Your task to perform on an android device: Show me a list of home improvement items on the Home Depot website. Image 0: 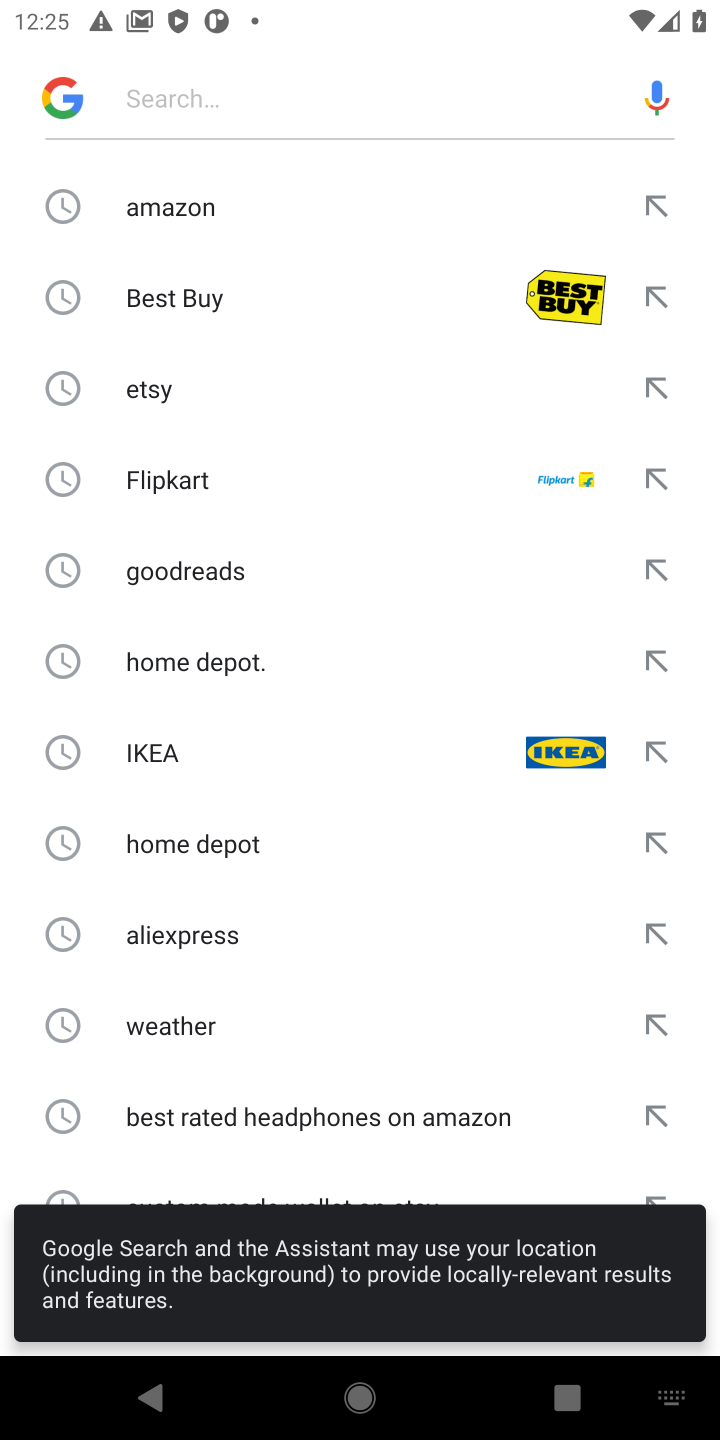
Step 0: press home button
Your task to perform on an android device: Show me a list of home improvement items on the Home Depot website. Image 1: 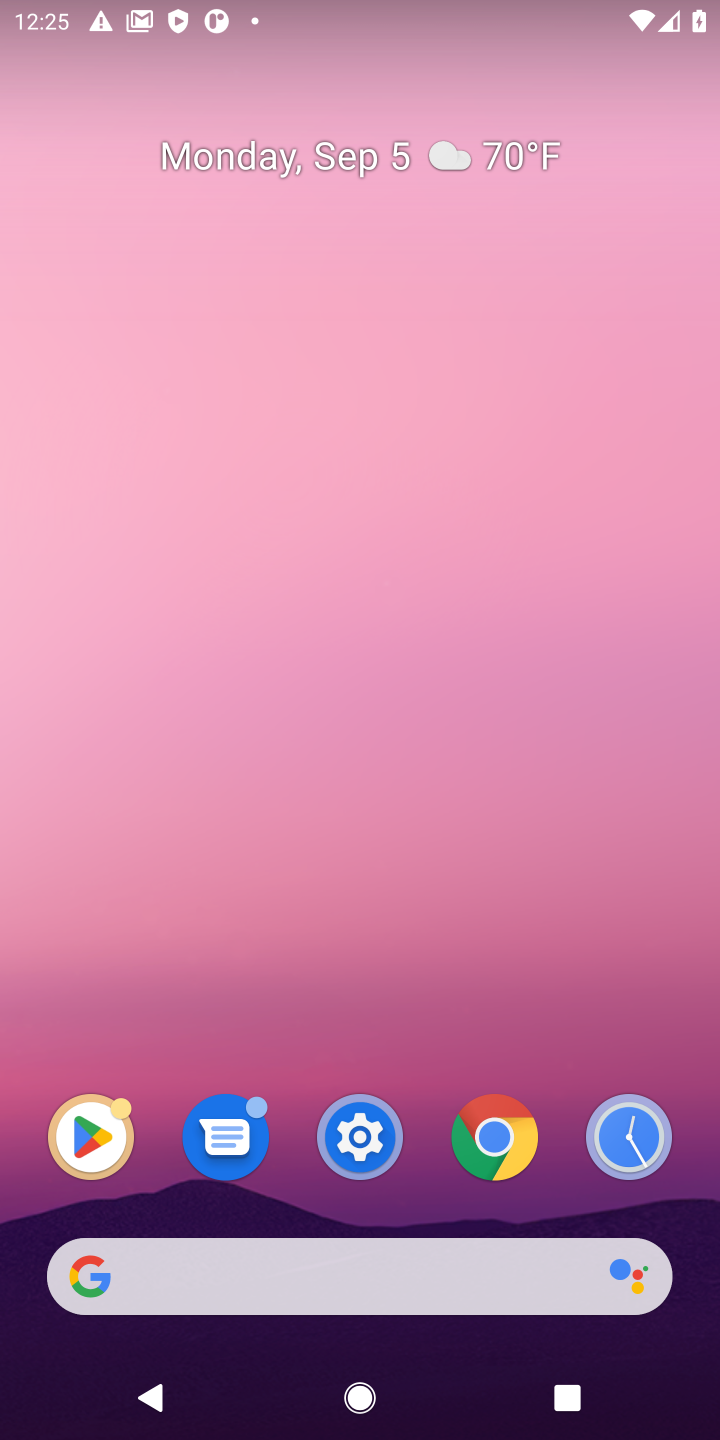
Step 1: click (483, 1148)
Your task to perform on an android device: Show me a list of home improvement items on the Home Depot website. Image 2: 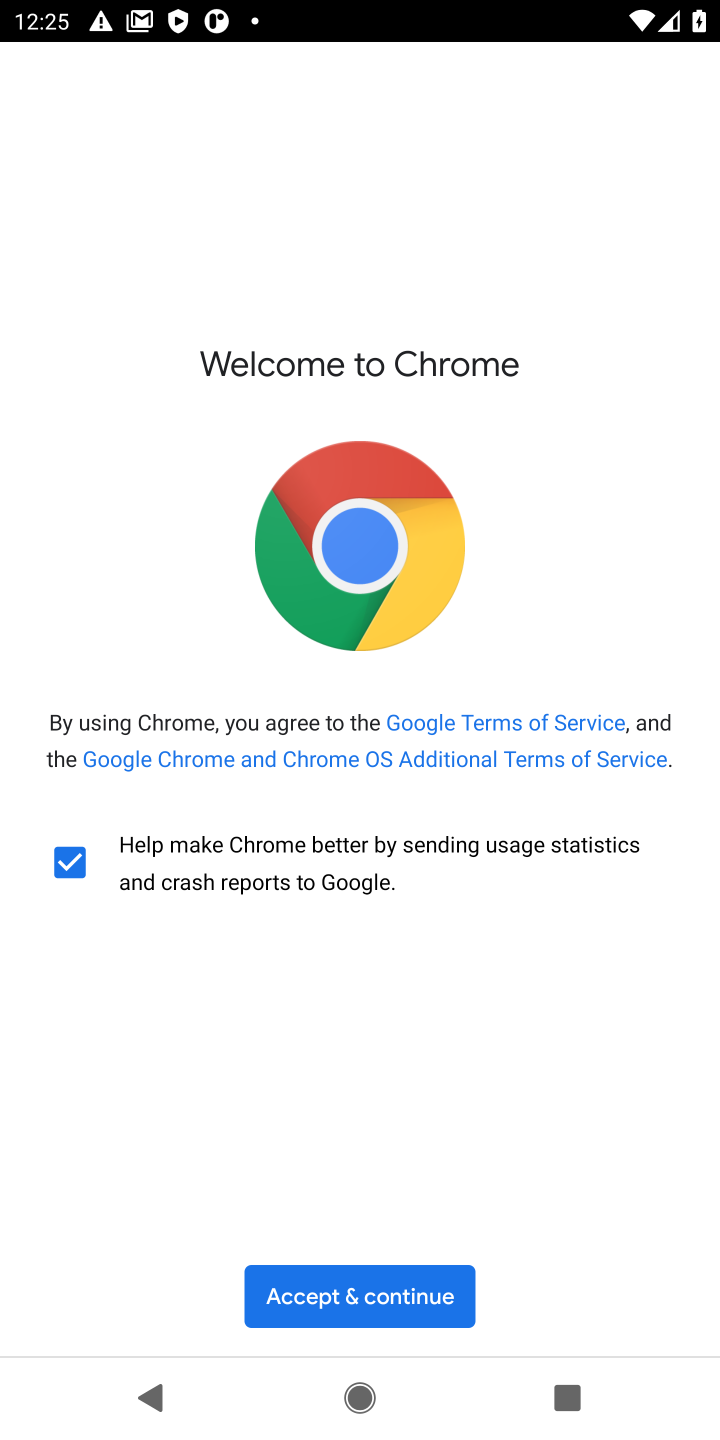
Step 2: click (356, 1305)
Your task to perform on an android device: Show me a list of home improvement items on the Home Depot website. Image 3: 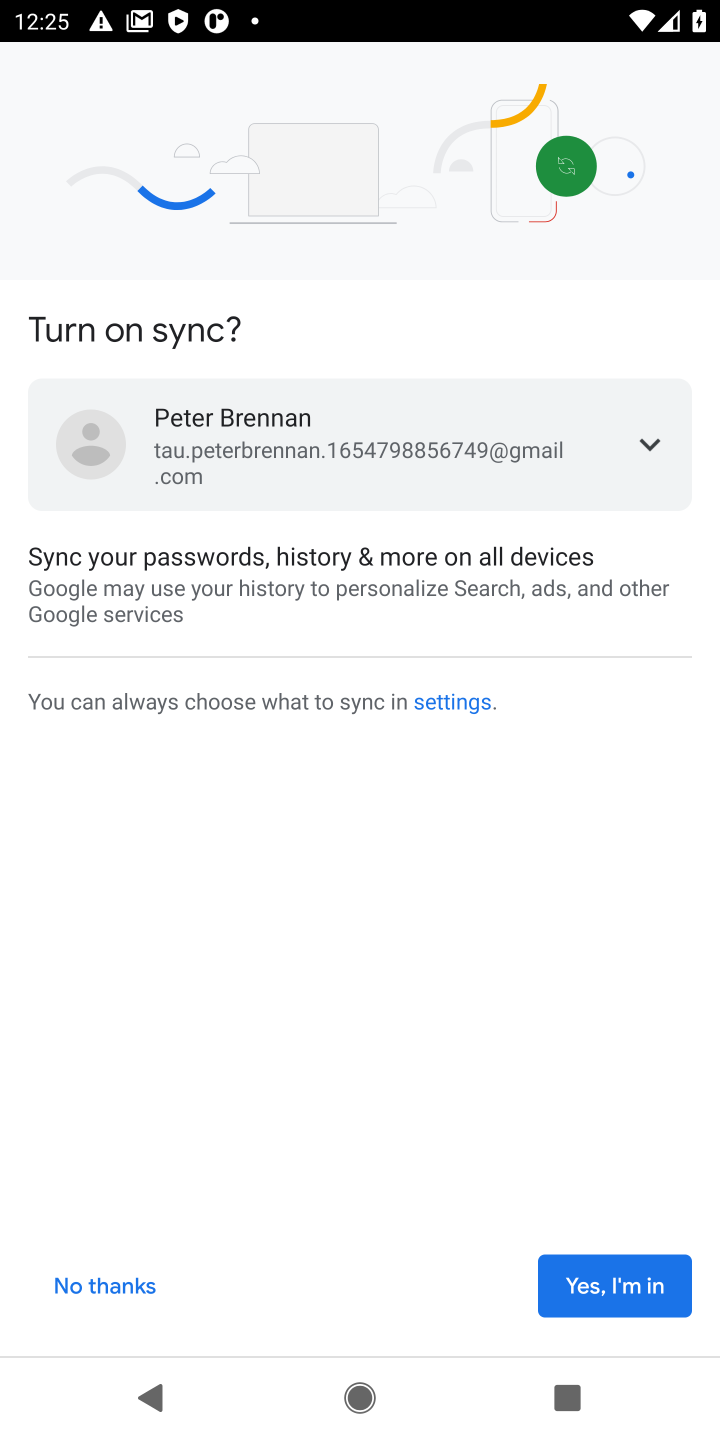
Step 3: click (573, 1276)
Your task to perform on an android device: Show me a list of home improvement items on the Home Depot website. Image 4: 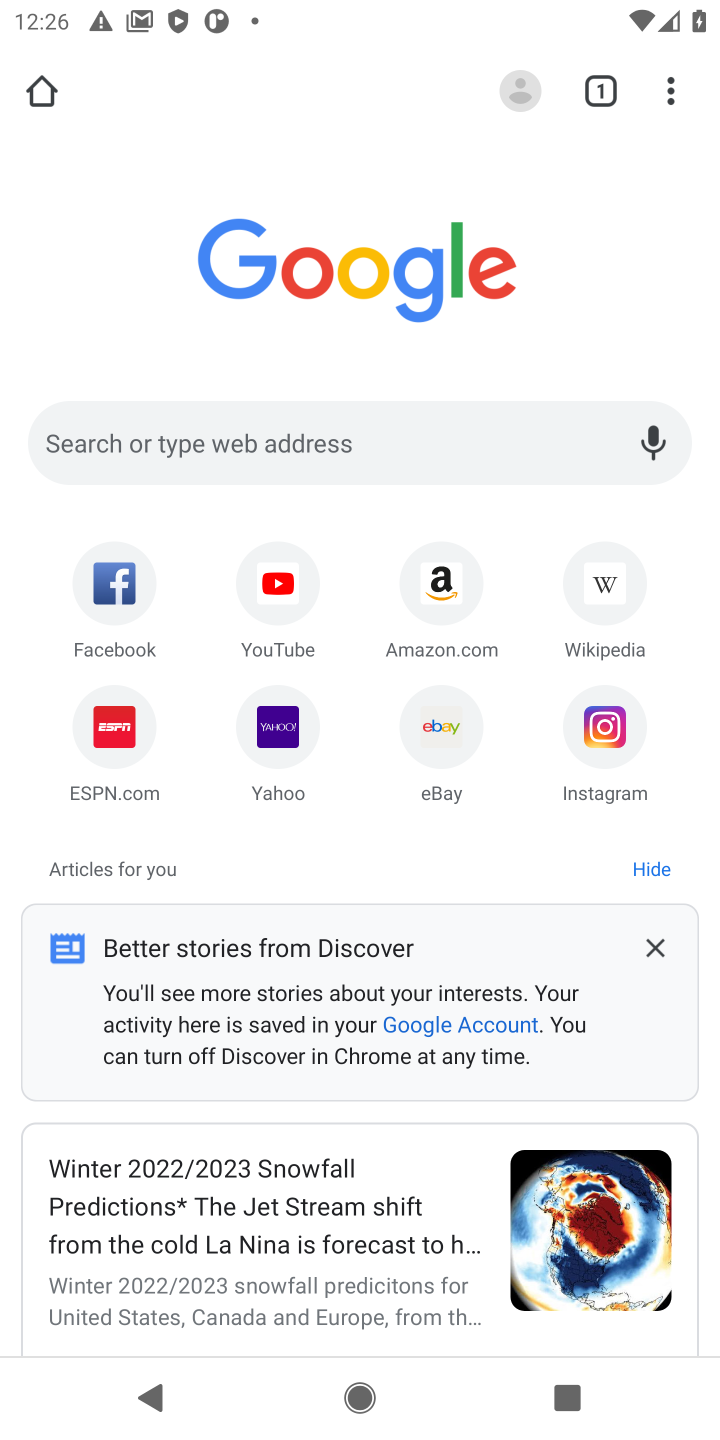
Step 4: click (342, 461)
Your task to perform on an android device: Show me a list of home improvement items on the Home Depot website. Image 5: 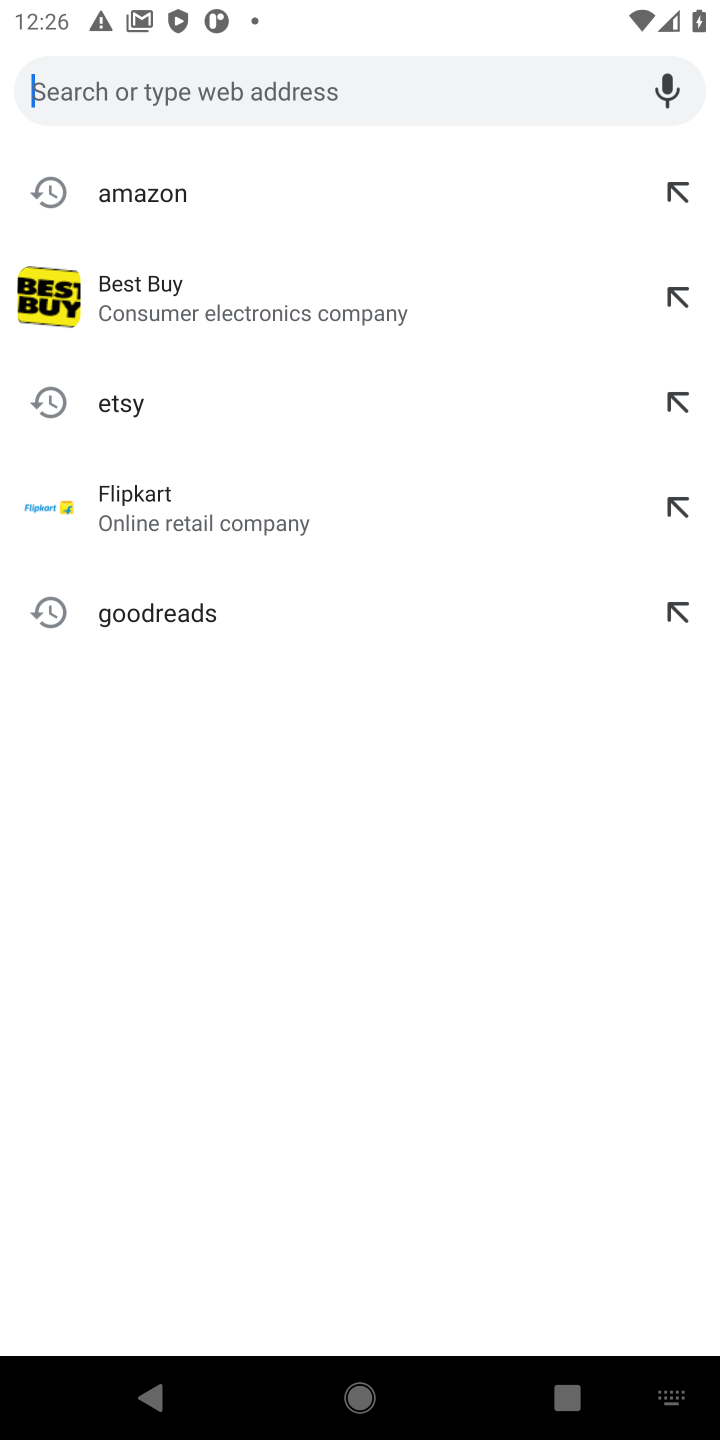
Step 5: type "home depot"
Your task to perform on an android device: Show me a list of home improvement items on the Home Depot website. Image 6: 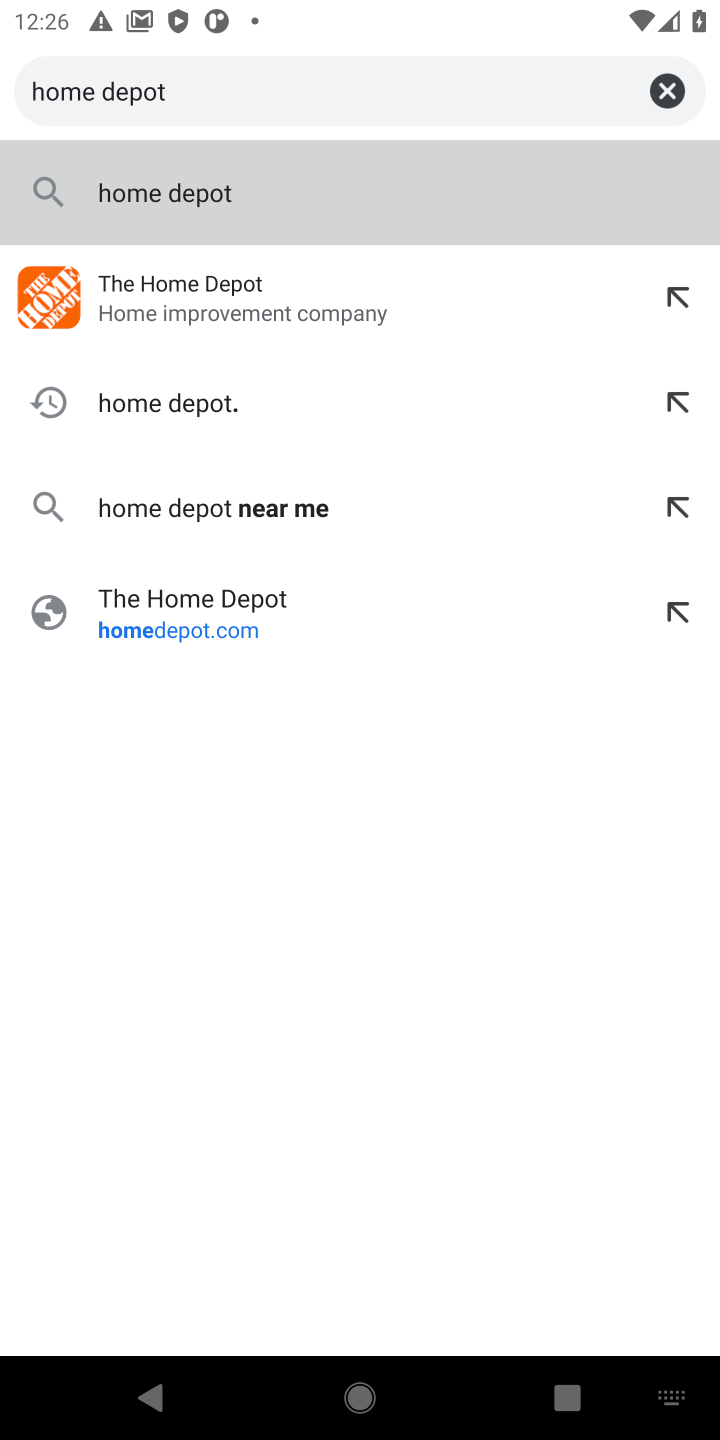
Step 6: click (257, 640)
Your task to perform on an android device: Show me a list of home improvement items on the Home Depot website. Image 7: 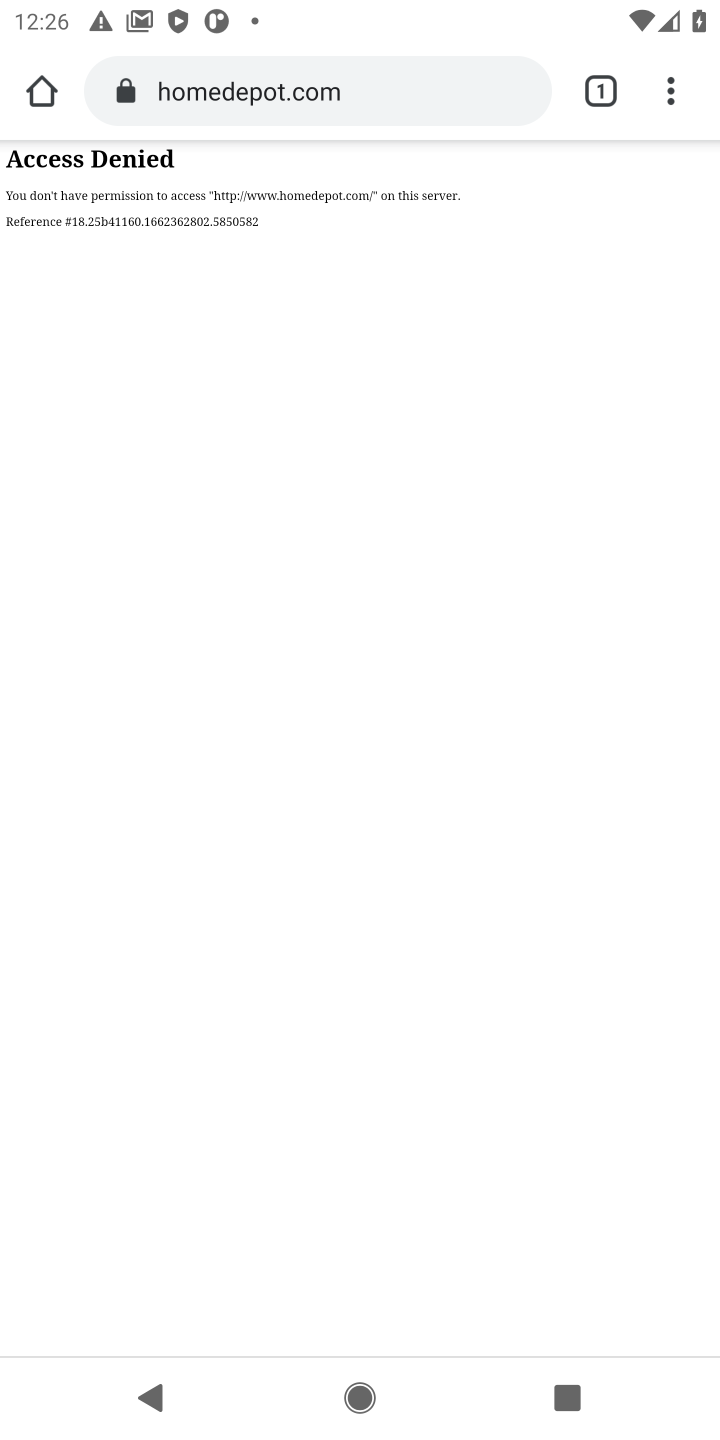
Step 7: task complete